Your task to perform on an android device: turn on location history Image 0: 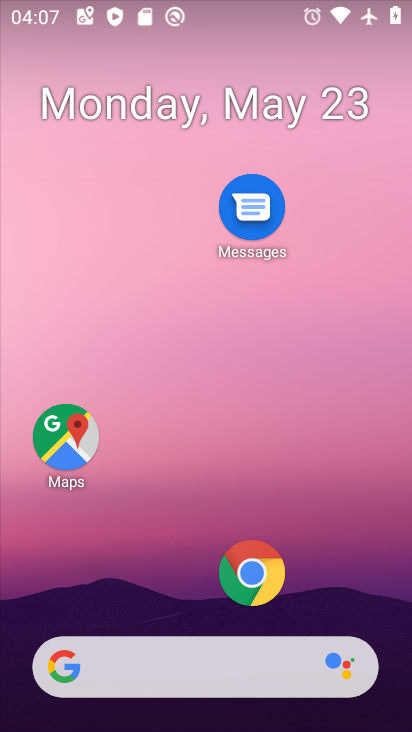
Step 0: drag from (217, 684) to (290, 2)
Your task to perform on an android device: turn on location history Image 1: 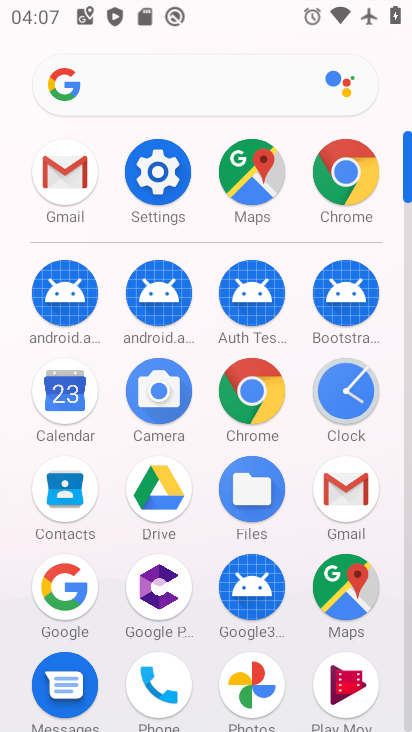
Step 1: click (164, 187)
Your task to perform on an android device: turn on location history Image 2: 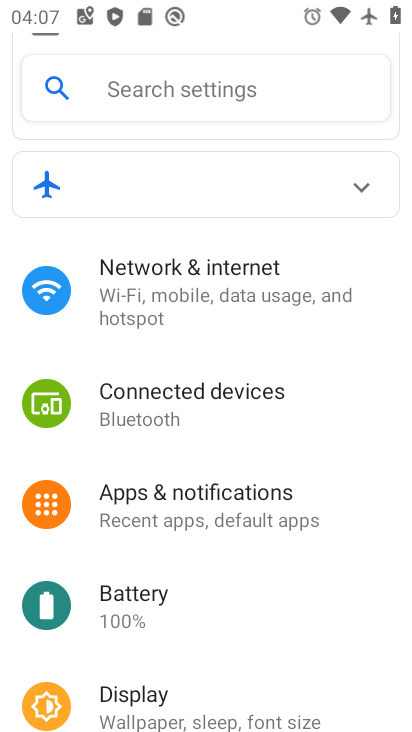
Step 2: drag from (217, 717) to (262, 130)
Your task to perform on an android device: turn on location history Image 3: 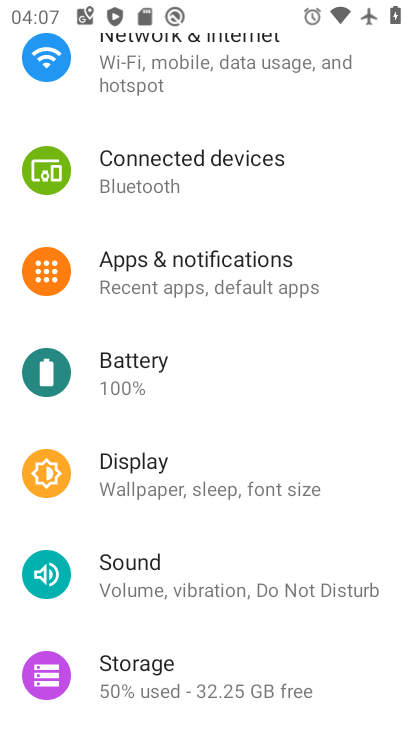
Step 3: drag from (200, 693) to (273, 145)
Your task to perform on an android device: turn on location history Image 4: 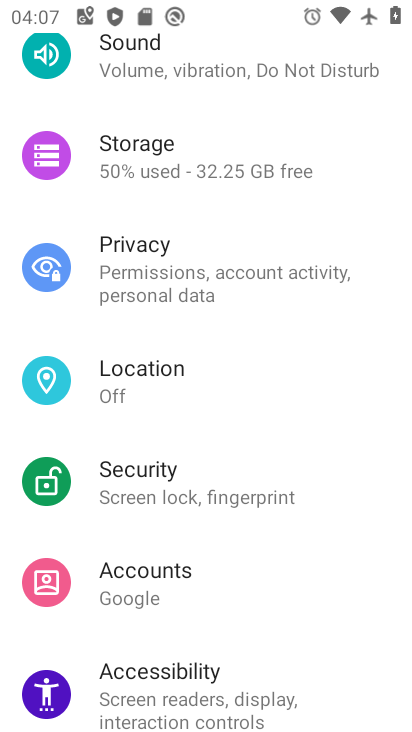
Step 4: click (198, 386)
Your task to perform on an android device: turn on location history Image 5: 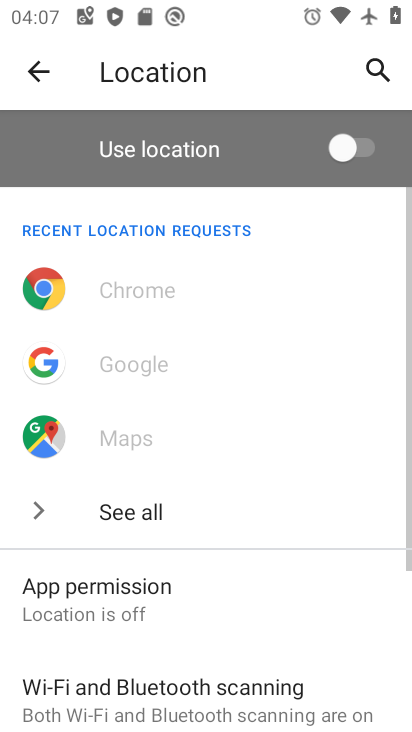
Step 5: drag from (275, 648) to (315, 54)
Your task to perform on an android device: turn on location history Image 6: 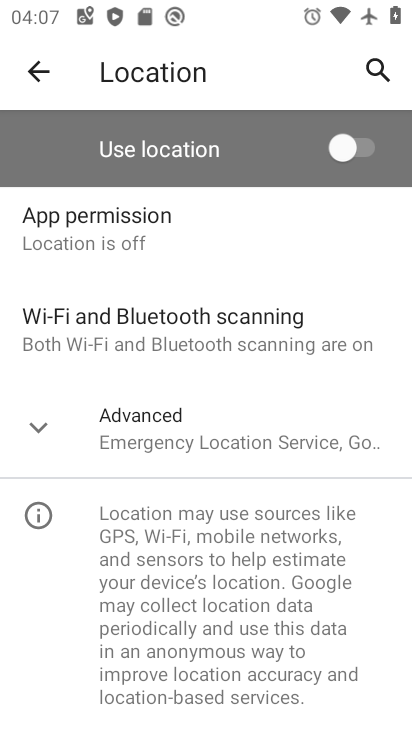
Step 6: click (249, 439)
Your task to perform on an android device: turn on location history Image 7: 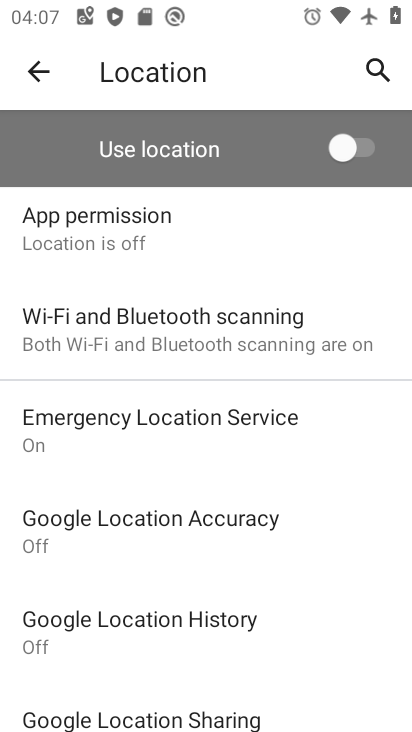
Step 7: click (204, 618)
Your task to perform on an android device: turn on location history Image 8: 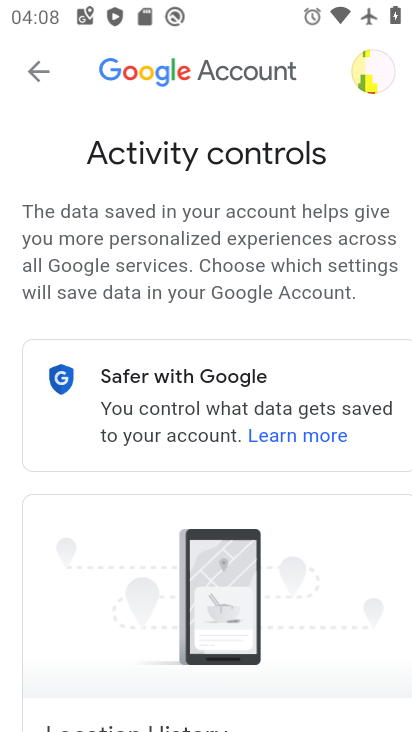
Step 8: drag from (307, 655) to (301, 32)
Your task to perform on an android device: turn on location history Image 9: 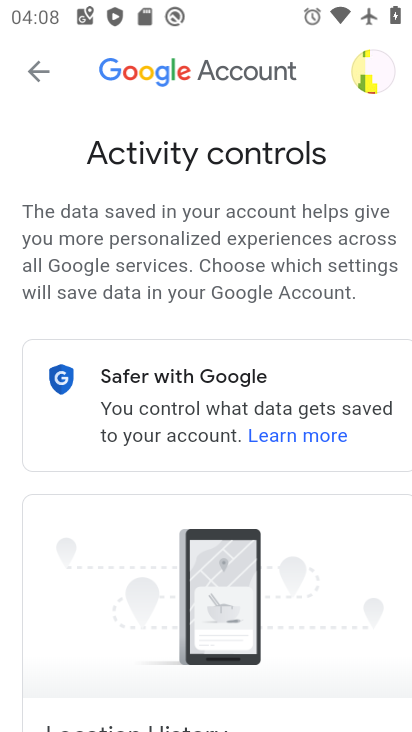
Step 9: drag from (276, 588) to (270, 37)
Your task to perform on an android device: turn on location history Image 10: 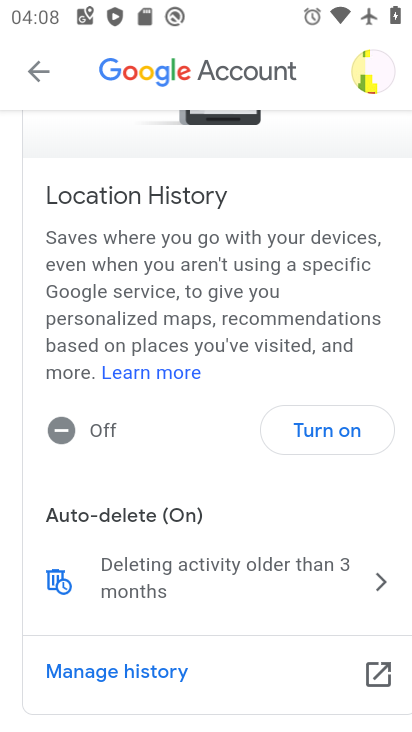
Step 10: click (329, 424)
Your task to perform on an android device: turn on location history Image 11: 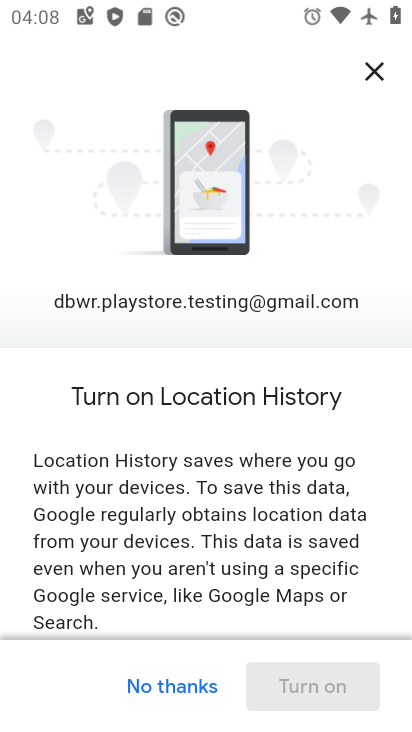
Step 11: drag from (285, 607) to (332, 40)
Your task to perform on an android device: turn on location history Image 12: 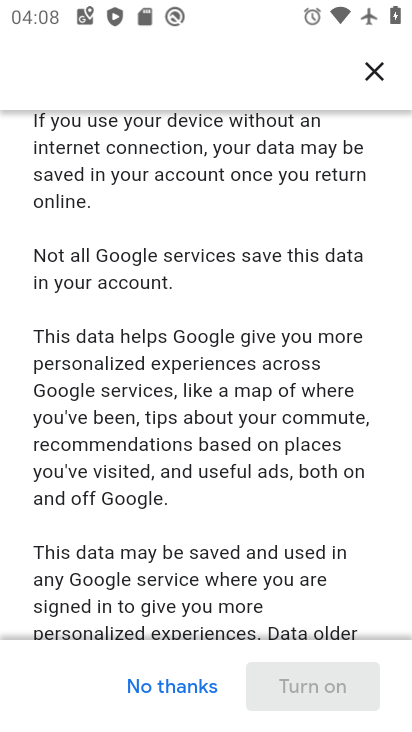
Step 12: drag from (295, 534) to (355, 66)
Your task to perform on an android device: turn on location history Image 13: 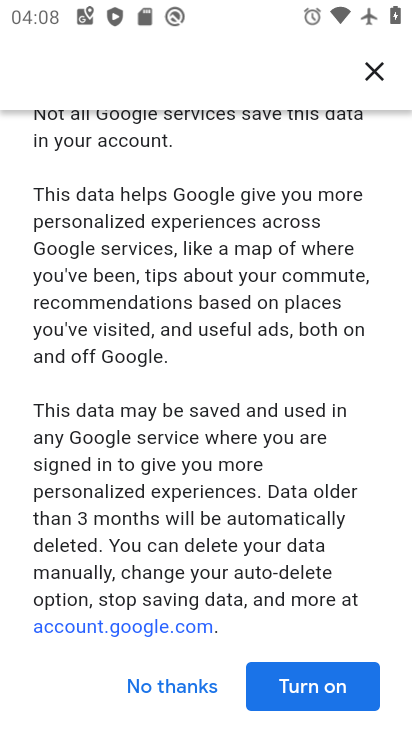
Step 13: click (328, 685)
Your task to perform on an android device: turn on location history Image 14: 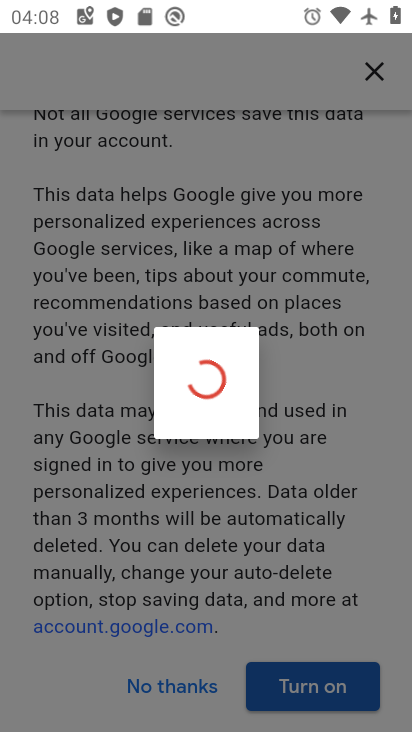
Step 14: click (338, 693)
Your task to perform on an android device: turn on location history Image 15: 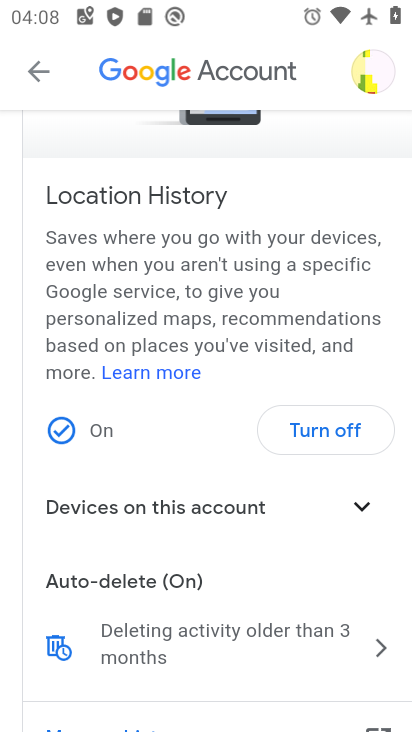
Step 15: task complete